Your task to perform on an android device: Go to Yahoo.com Image 0: 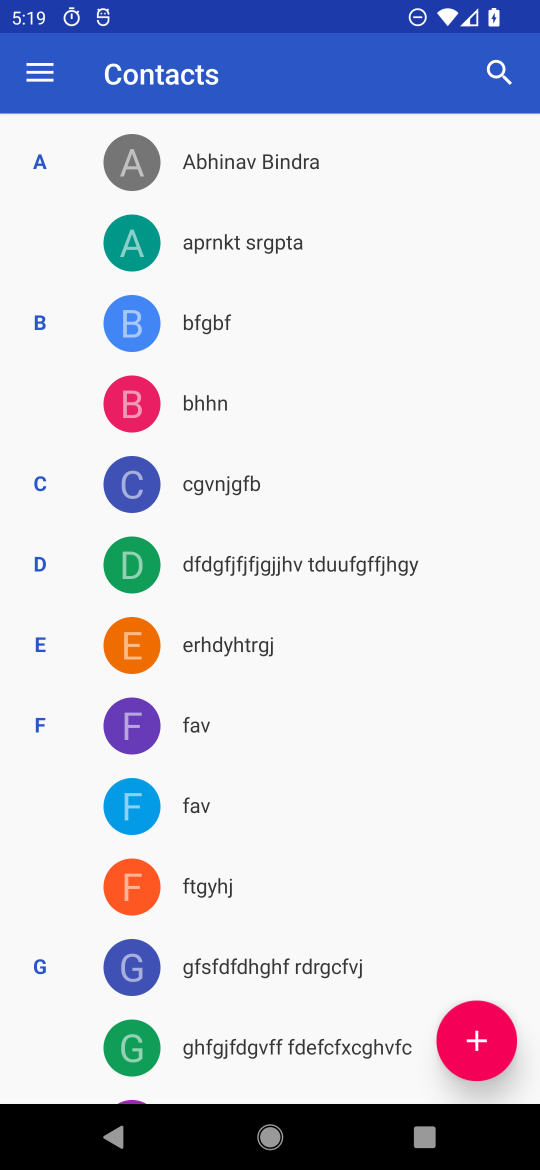
Step 0: press home button
Your task to perform on an android device: Go to Yahoo.com Image 1: 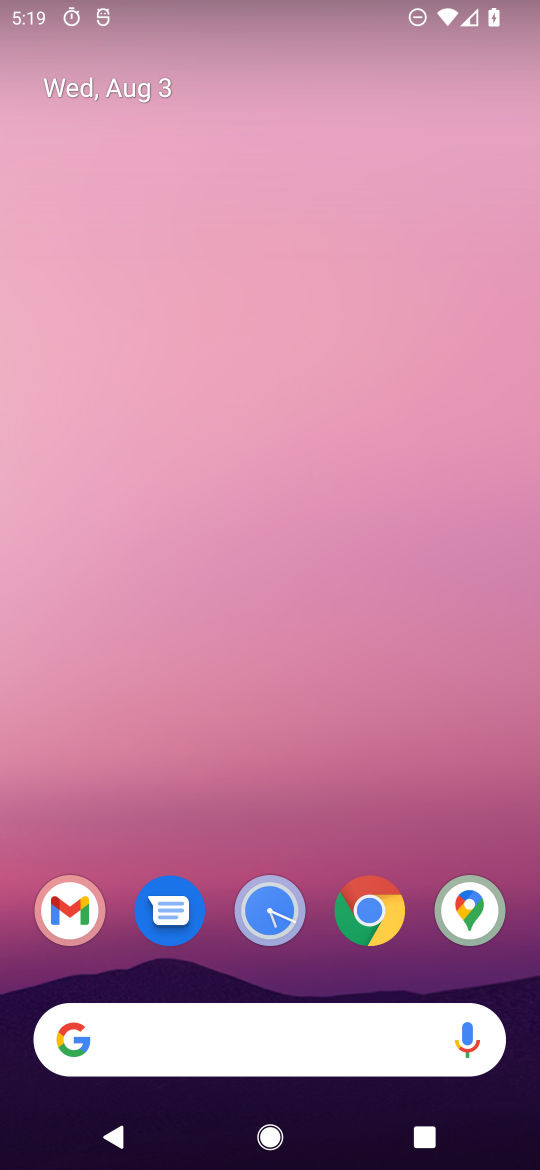
Step 1: click (112, 1048)
Your task to perform on an android device: Go to Yahoo.com Image 2: 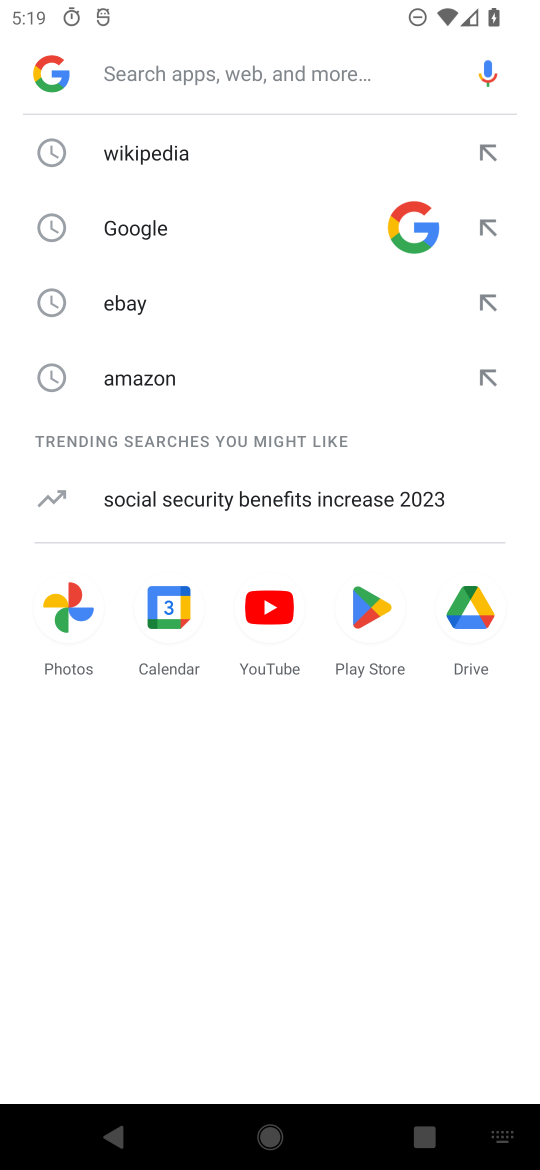
Step 2: type " Yahoo.com"
Your task to perform on an android device: Go to Yahoo.com Image 3: 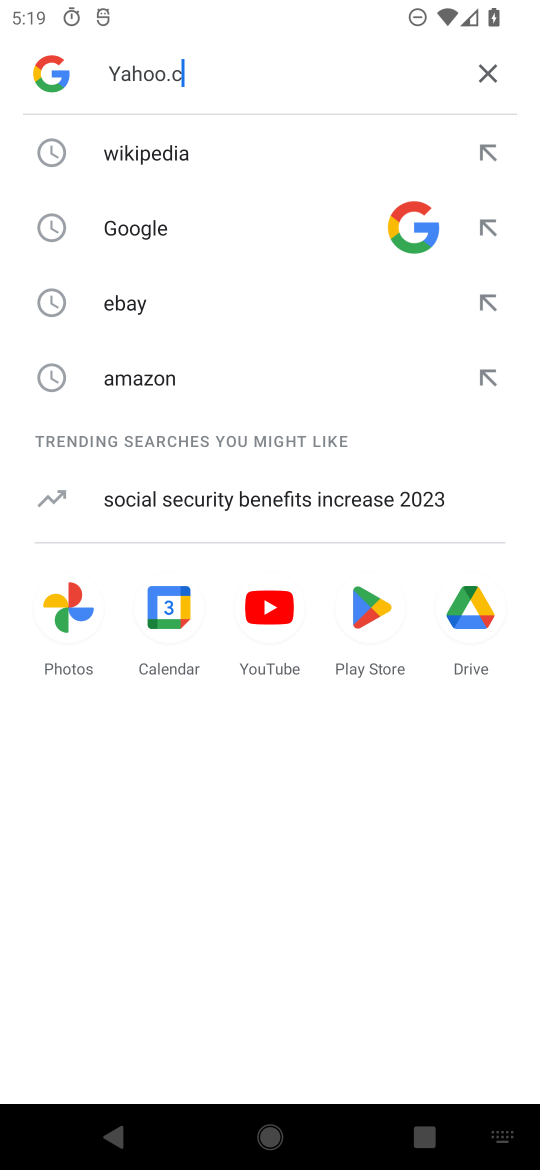
Step 3: type ""
Your task to perform on an android device: Go to Yahoo.com Image 4: 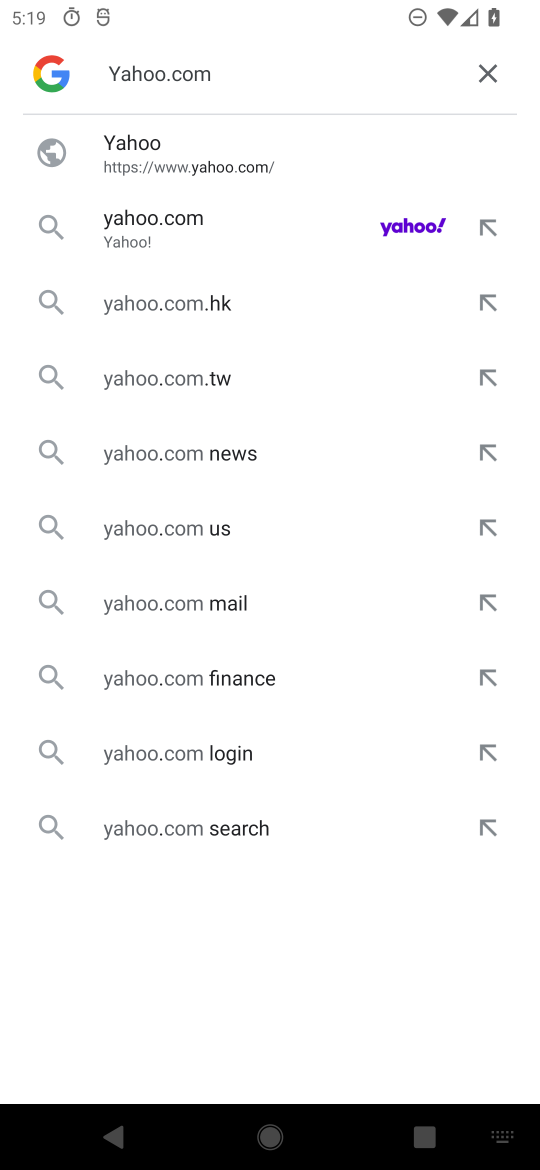
Step 4: click (149, 218)
Your task to perform on an android device: Go to Yahoo.com Image 5: 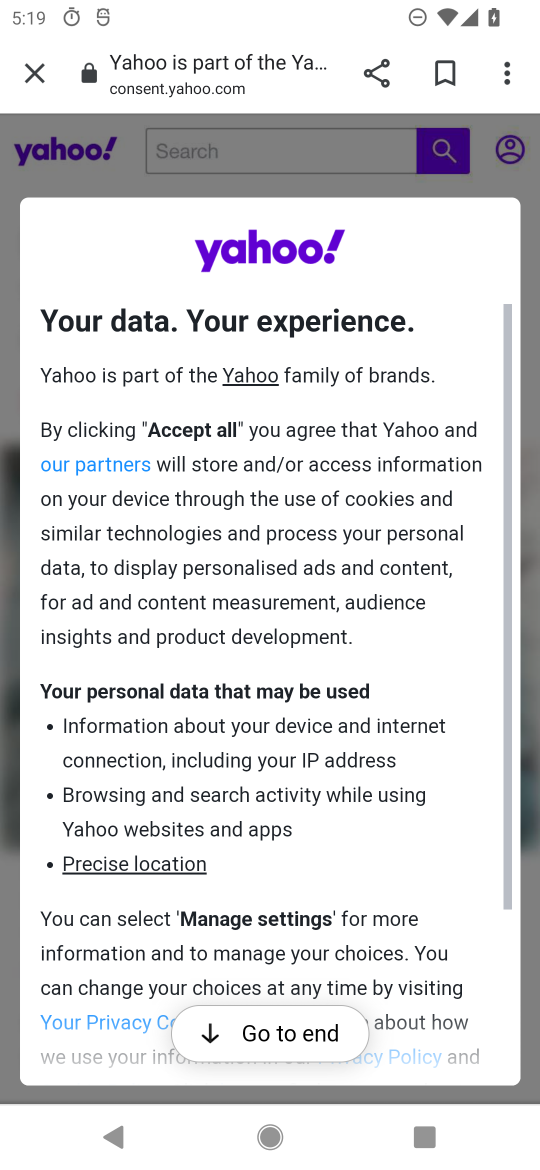
Step 5: task complete